Your task to perform on an android device: turn on location history Image 0: 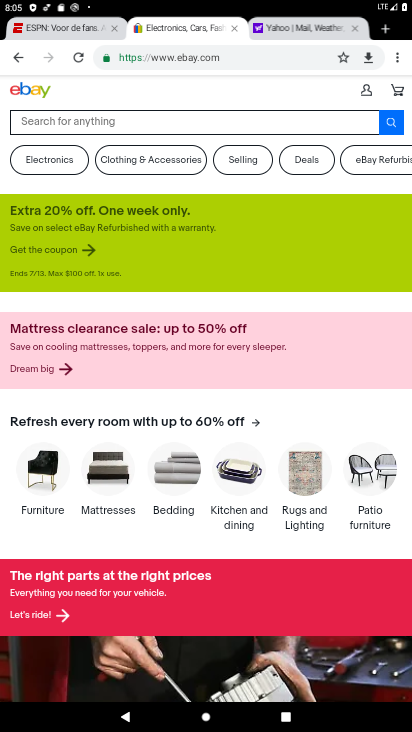
Step 0: press home button
Your task to perform on an android device: turn on location history Image 1: 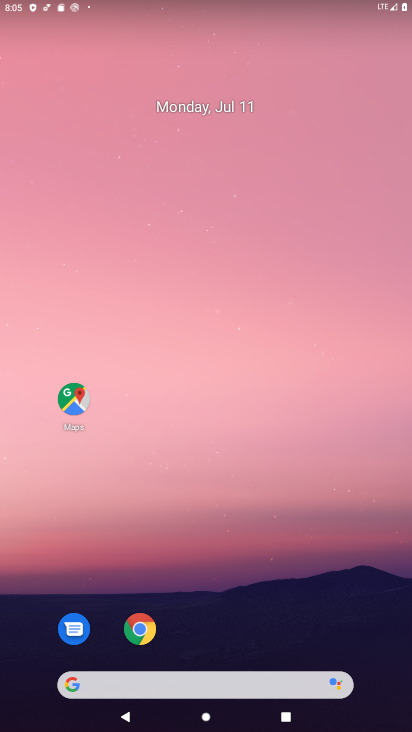
Step 1: drag from (195, 659) to (203, 91)
Your task to perform on an android device: turn on location history Image 2: 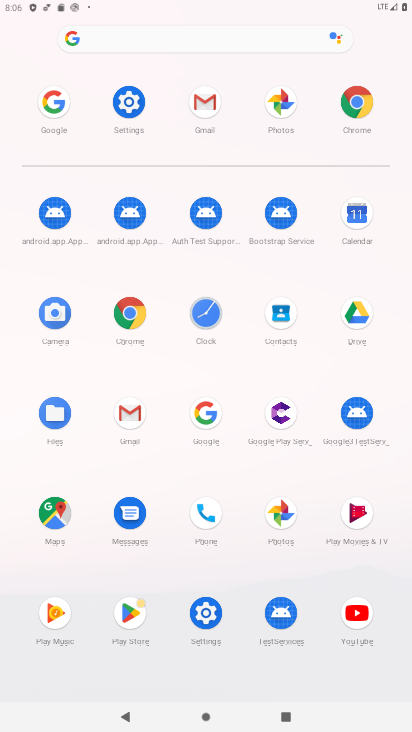
Step 2: click (130, 105)
Your task to perform on an android device: turn on location history Image 3: 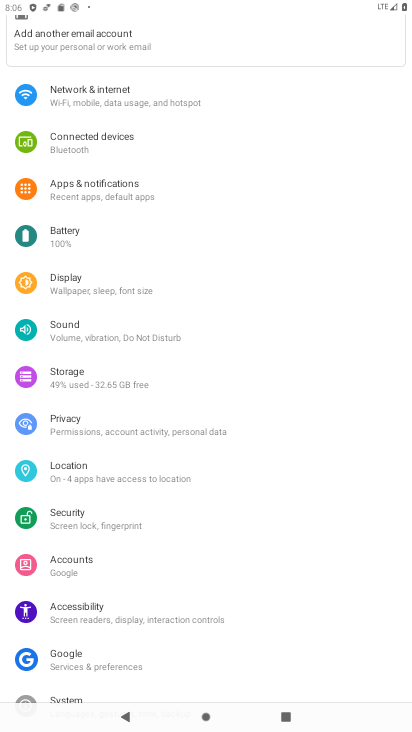
Step 3: click (51, 467)
Your task to perform on an android device: turn on location history Image 4: 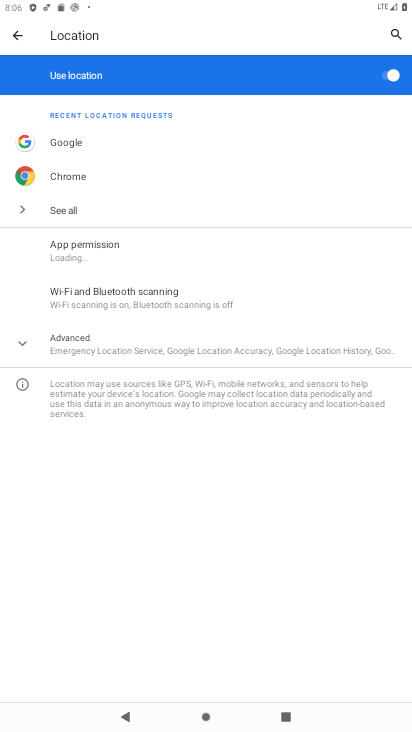
Step 4: click (103, 345)
Your task to perform on an android device: turn on location history Image 5: 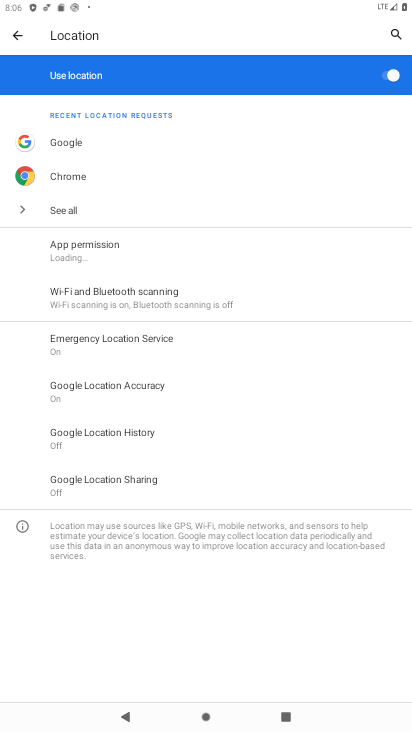
Step 5: click (127, 433)
Your task to perform on an android device: turn on location history Image 6: 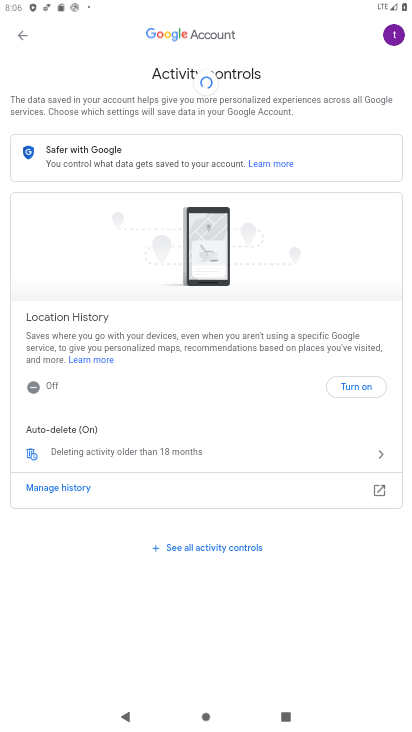
Step 6: click (346, 387)
Your task to perform on an android device: turn on location history Image 7: 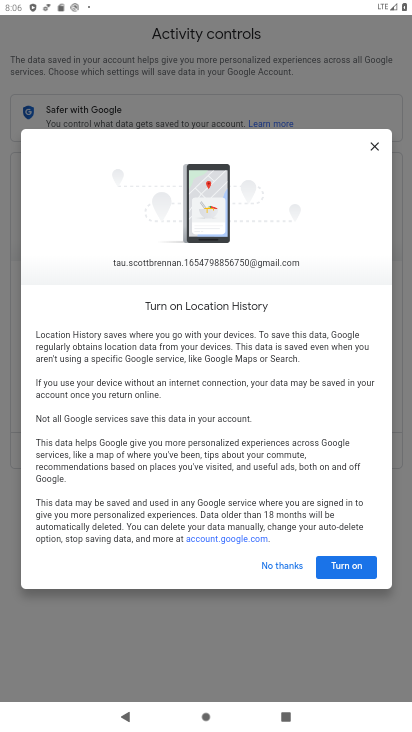
Step 7: click (338, 558)
Your task to perform on an android device: turn on location history Image 8: 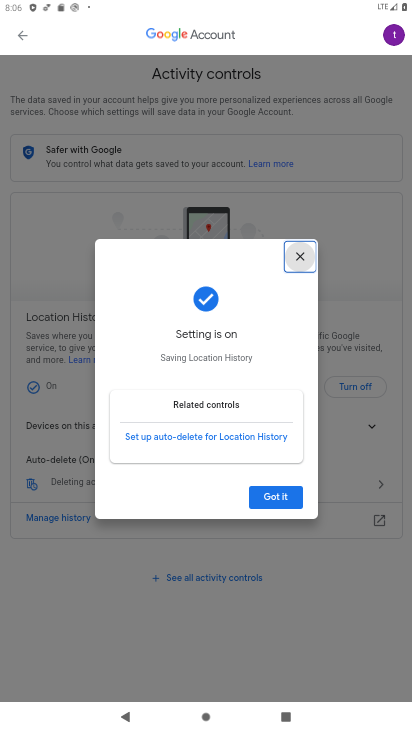
Step 8: click (276, 500)
Your task to perform on an android device: turn on location history Image 9: 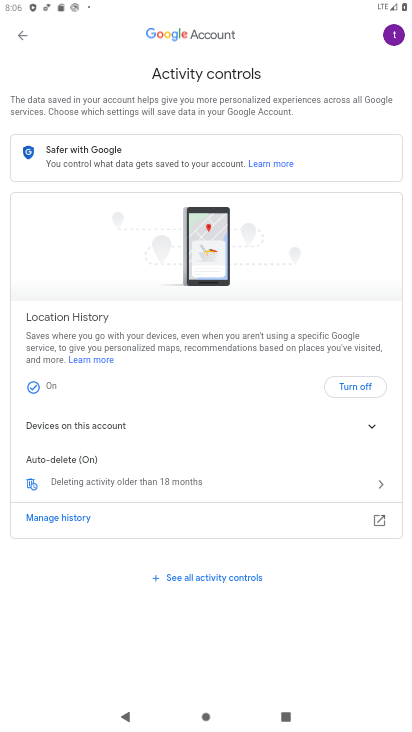
Step 9: task complete